Your task to perform on an android device: Go to accessibility settings Image 0: 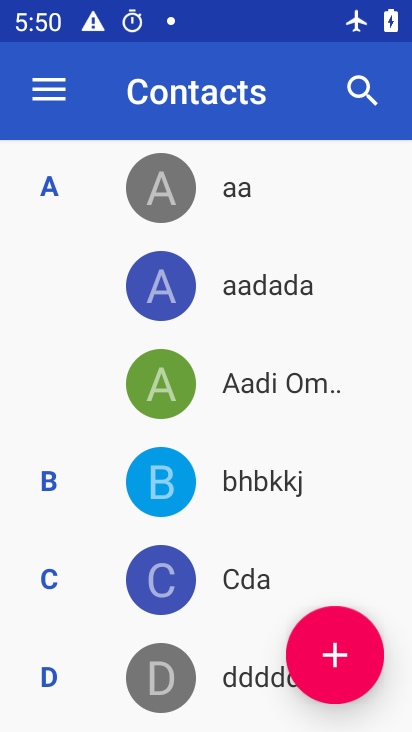
Step 0: press home button
Your task to perform on an android device: Go to accessibility settings Image 1: 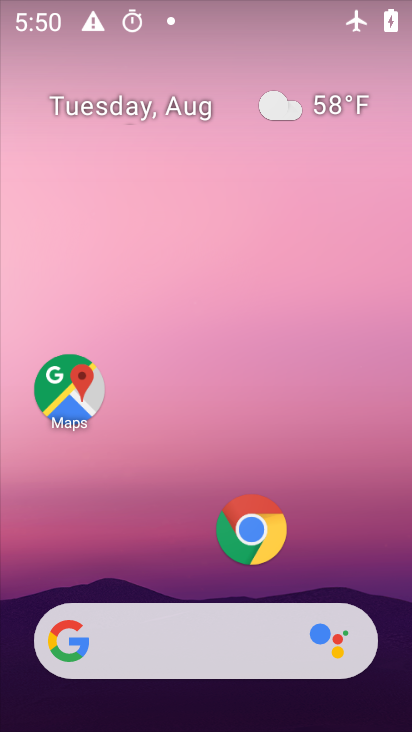
Step 1: drag from (190, 543) to (199, 245)
Your task to perform on an android device: Go to accessibility settings Image 2: 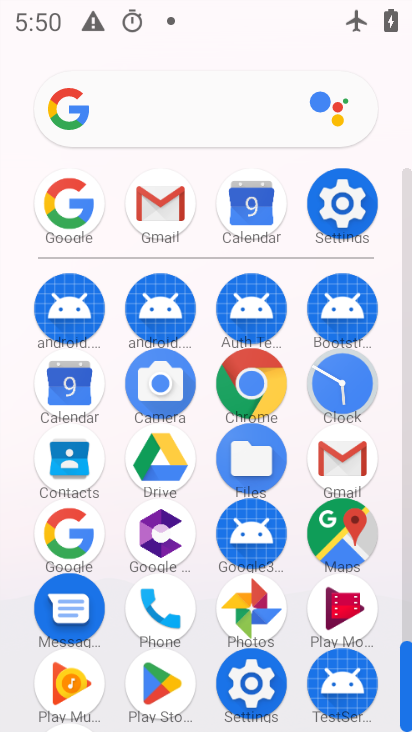
Step 2: click (335, 227)
Your task to perform on an android device: Go to accessibility settings Image 3: 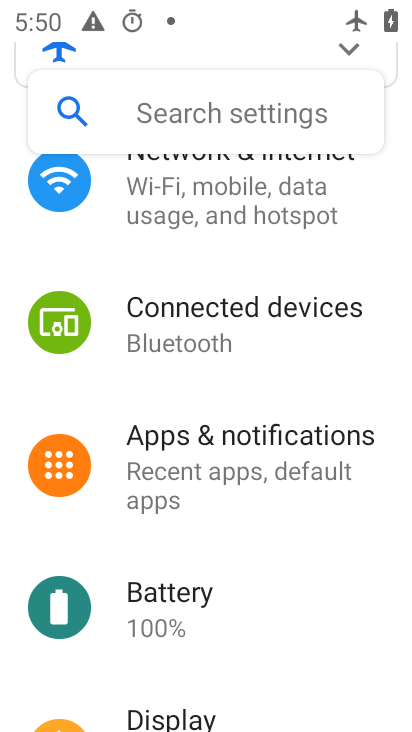
Step 3: drag from (237, 608) to (262, 225)
Your task to perform on an android device: Go to accessibility settings Image 4: 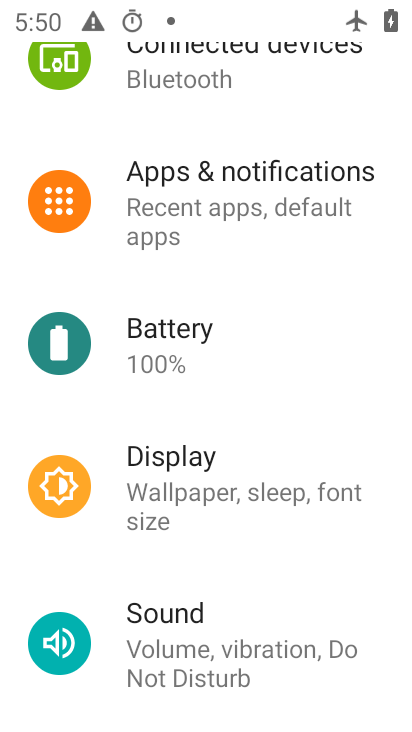
Step 4: drag from (249, 556) to (256, 248)
Your task to perform on an android device: Go to accessibility settings Image 5: 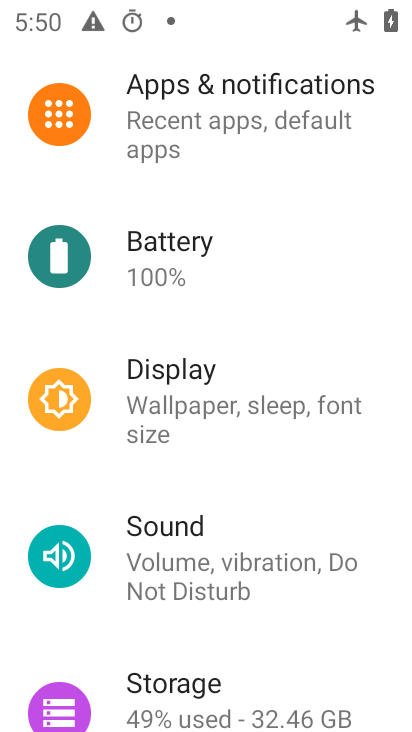
Step 5: drag from (280, 457) to (282, 190)
Your task to perform on an android device: Go to accessibility settings Image 6: 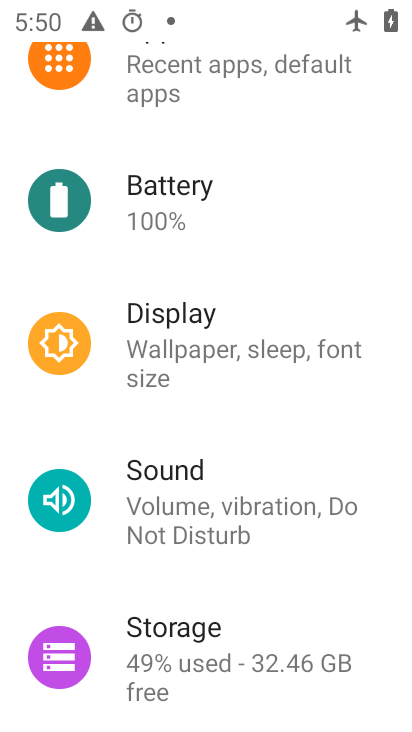
Step 6: drag from (247, 547) to (253, 169)
Your task to perform on an android device: Go to accessibility settings Image 7: 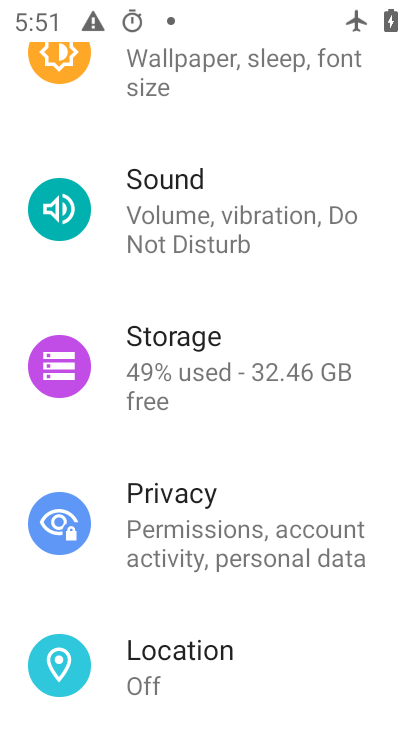
Step 7: drag from (251, 562) to (251, 129)
Your task to perform on an android device: Go to accessibility settings Image 8: 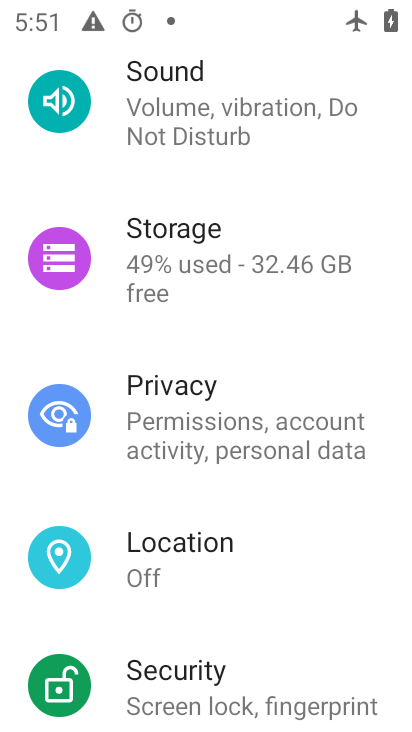
Step 8: drag from (251, 527) to (254, 191)
Your task to perform on an android device: Go to accessibility settings Image 9: 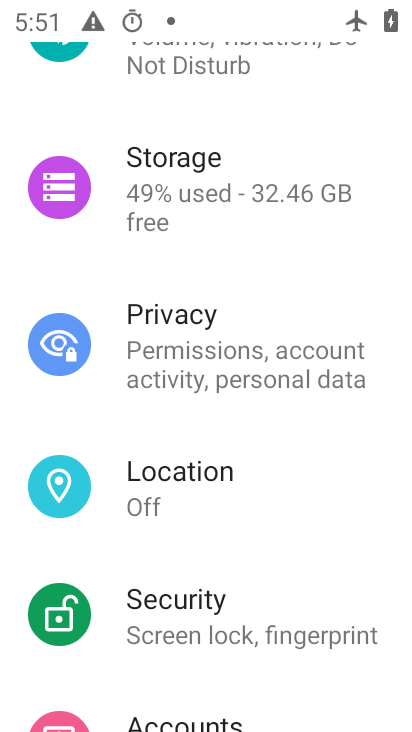
Step 9: drag from (248, 620) to (248, 197)
Your task to perform on an android device: Go to accessibility settings Image 10: 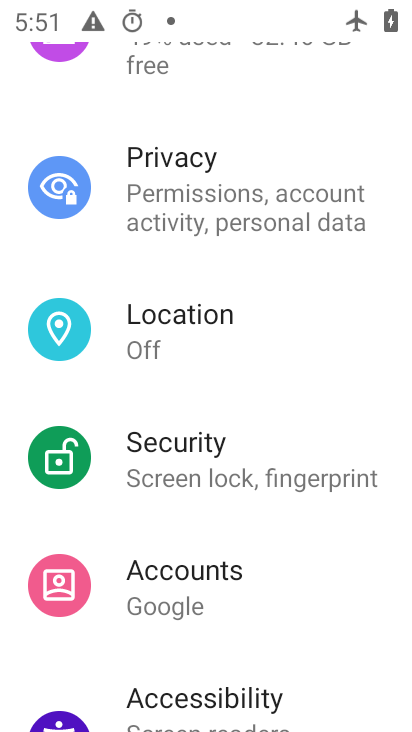
Step 10: drag from (221, 637) to (230, 250)
Your task to perform on an android device: Go to accessibility settings Image 11: 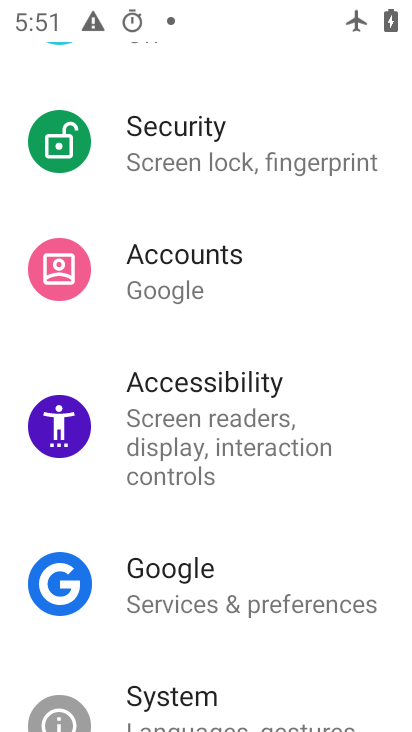
Step 11: click (231, 433)
Your task to perform on an android device: Go to accessibility settings Image 12: 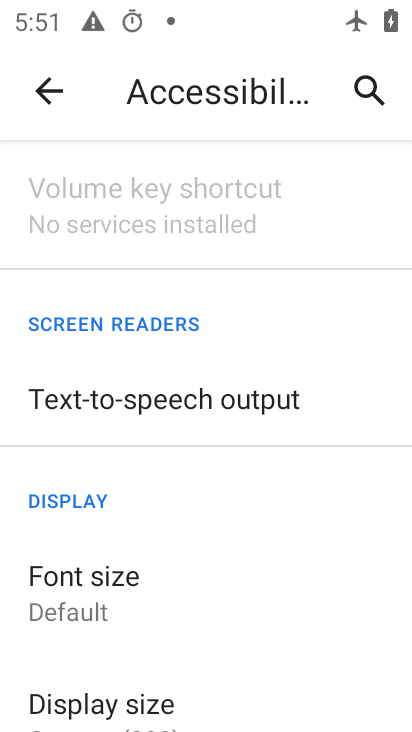
Step 12: task complete